Your task to perform on an android device: see tabs open on other devices in the chrome app Image 0: 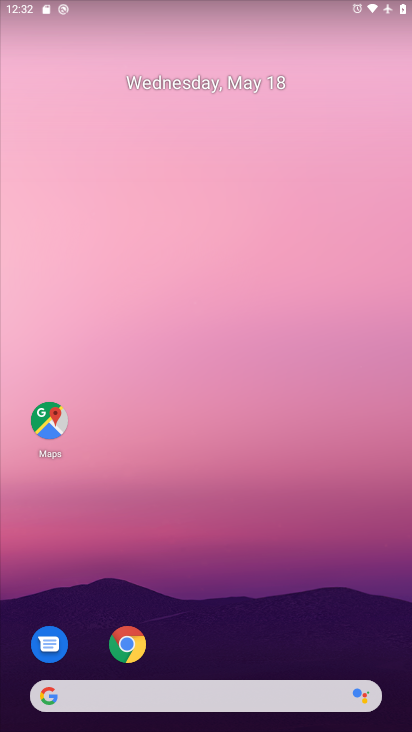
Step 0: press home button
Your task to perform on an android device: see tabs open on other devices in the chrome app Image 1: 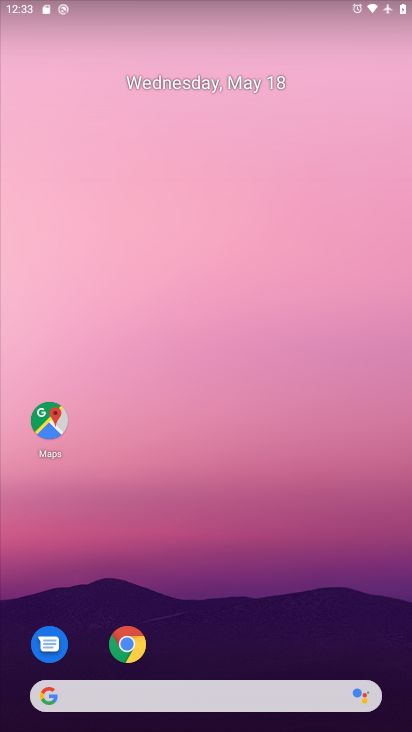
Step 1: click (129, 641)
Your task to perform on an android device: see tabs open on other devices in the chrome app Image 2: 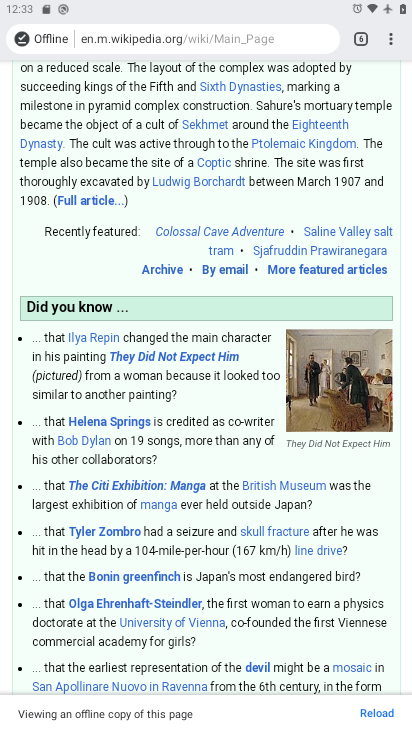
Step 2: click (397, 30)
Your task to perform on an android device: see tabs open on other devices in the chrome app Image 3: 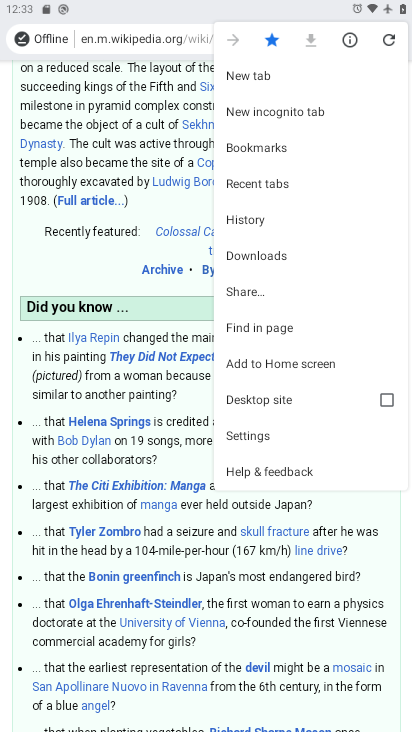
Step 3: click (295, 188)
Your task to perform on an android device: see tabs open on other devices in the chrome app Image 4: 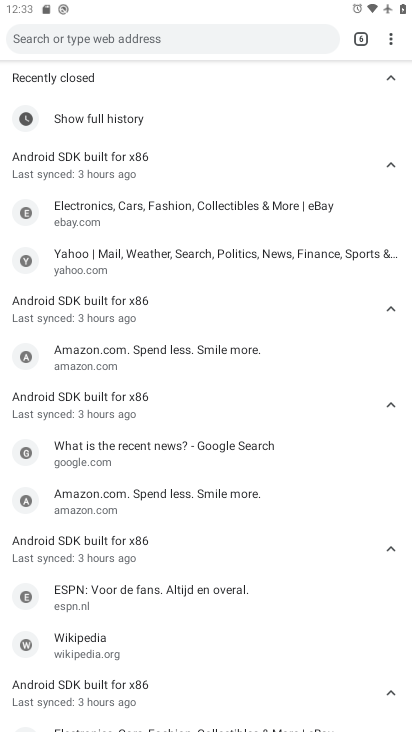
Step 4: task complete